Your task to perform on an android device: What's on my calendar tomorrow? Image 0: 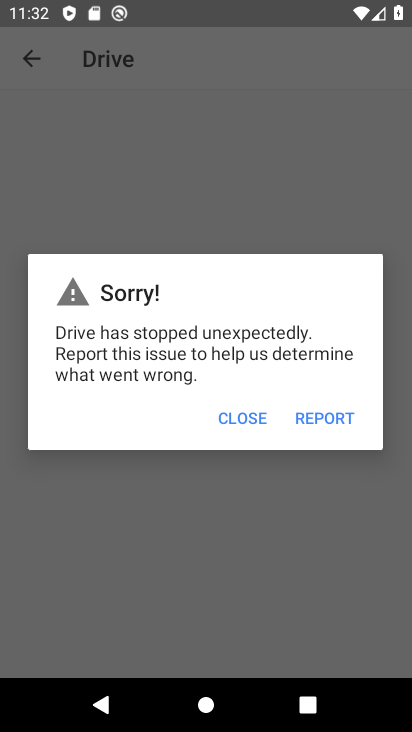
Step 0: press home button
Your task to perform on an android device: What's on my calendar tomorrow? Image 1: 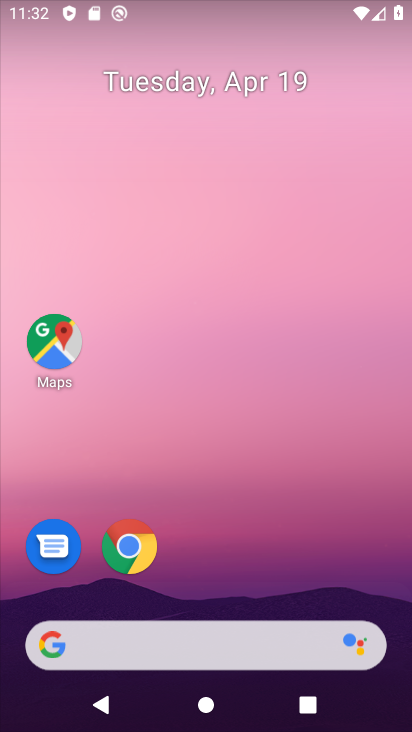
Step 1: drag from (294, 508) to (279, 7)
Your task to perform on an android device: What's on my calendar tomorrow? Image 2: 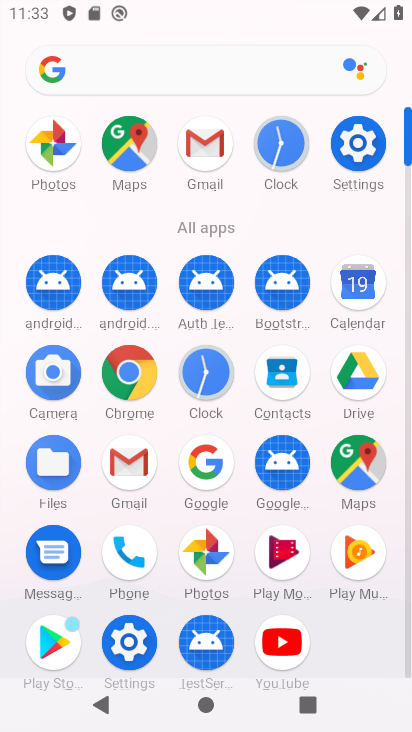
Step 2: click (357, 289)
Your task to perform on an android device: What's on my calendar tomorrow? Image 3: 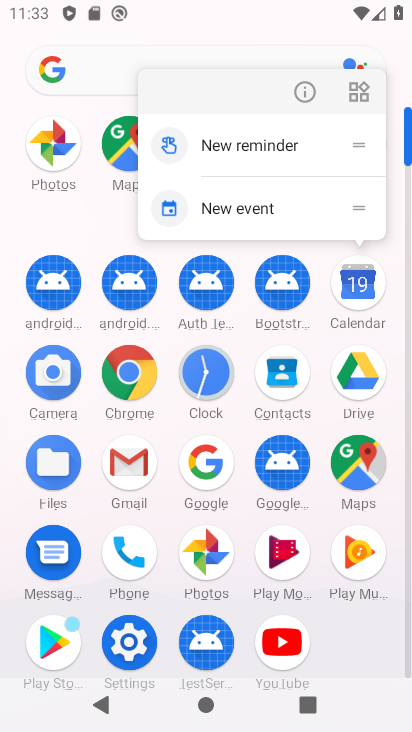
Step 3: click (352, 291)
Your task to perform on an android device: What's on my calendar tomorrow? Image 4: 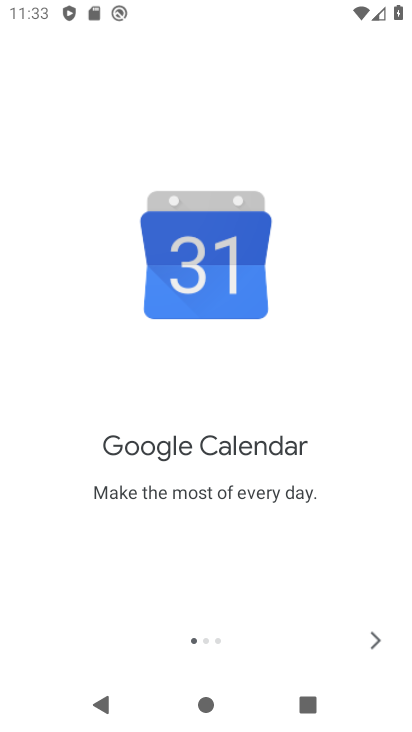
Step 4: click (375, 635)
Your task to perform on an android device: What's on my calendar tomorrow? Image 5: 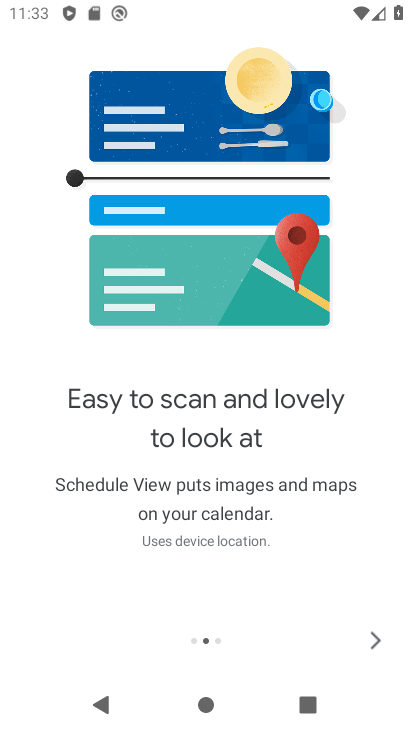
Step 5: click (375, 635)
Your task to perform on an android device: What's on my calendar tomorrow? Image 6: 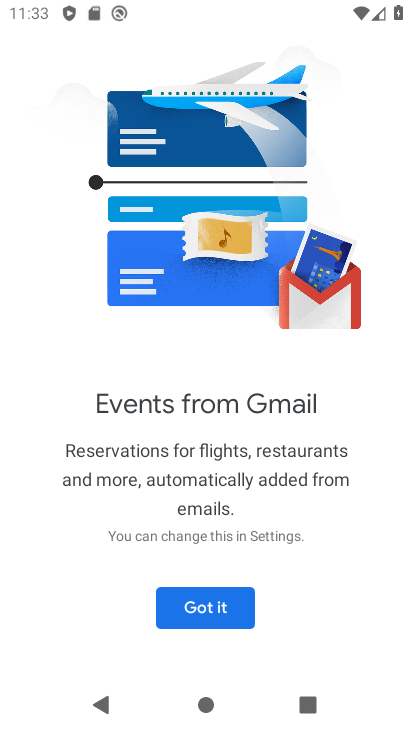
Step 6: click (215, 610)
Your task to perform on an android device: What's on my calendar tomorrow? Image 7: 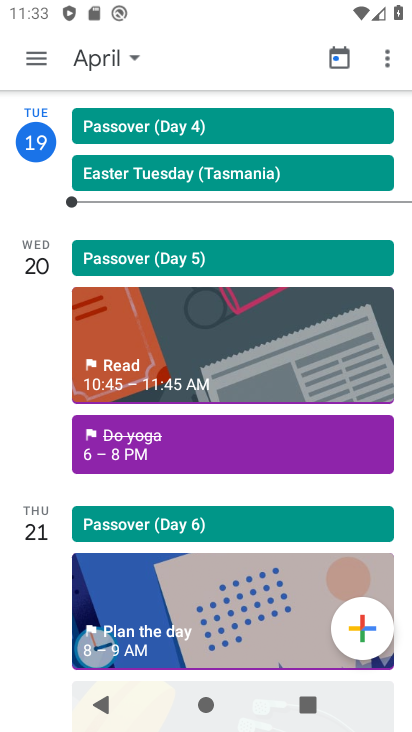
Step 7: drag from (375, 217) to (367, 81)
Your task to perform on an android device: What's on my calendar tomorrow? Image 8: 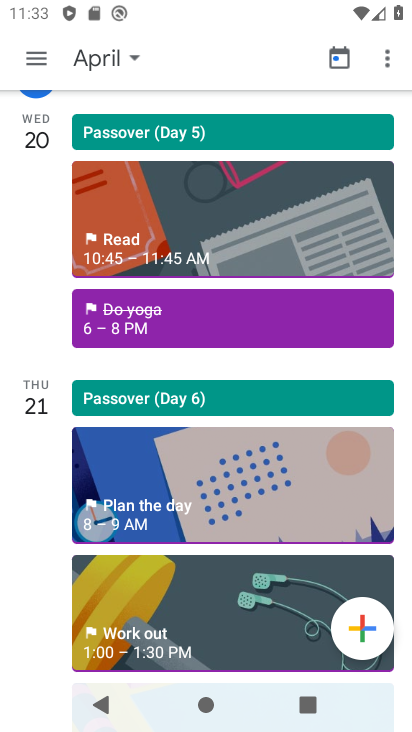
Step 8: drag from (324, 363) to (317, 88)
Your task to perform on an android device: What's on my calendar tomorrow? Image 9: 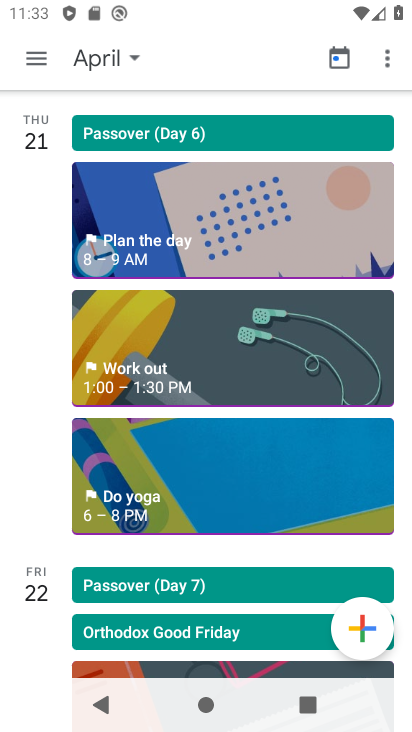
Step 9: click (38, 55)
Your task to perform on an android device: What's on my calendar tomorrow? Image 10: 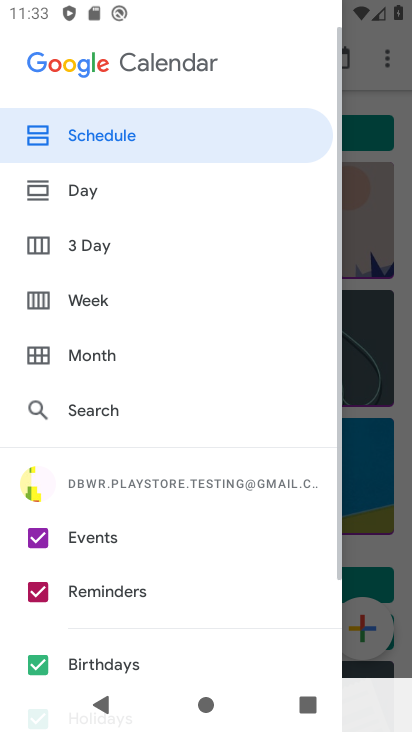
Step 10: click (384, 100)
Your task to perform on an android device: What's on my calendar tomorrow? Image 11: 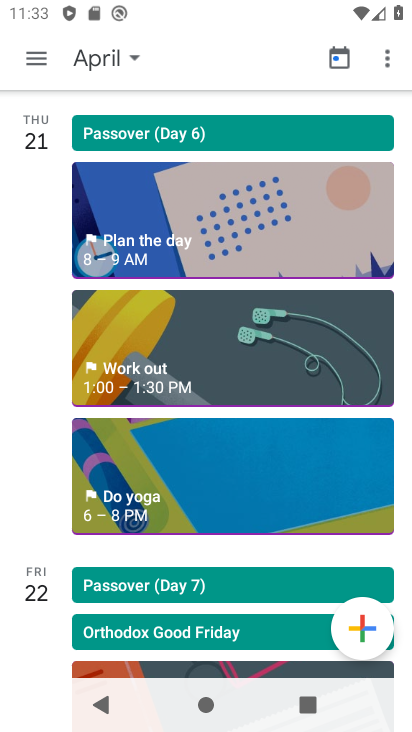
Step 11: task complete